Your task to perform on an android device: turn off location Image 0: 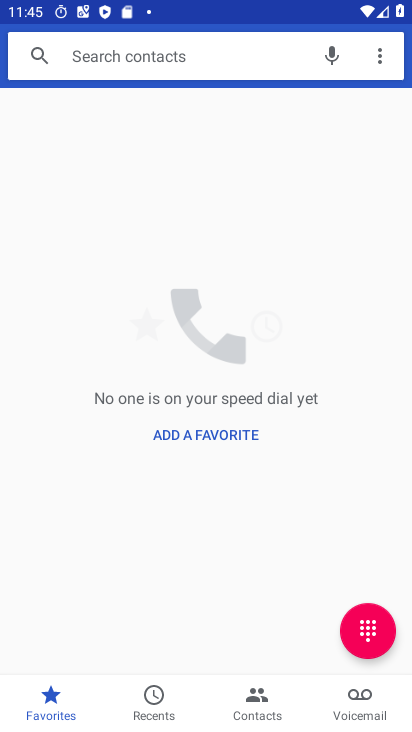
Step 0: press home button
Your task to perform on an android device: turn off location Image 1: 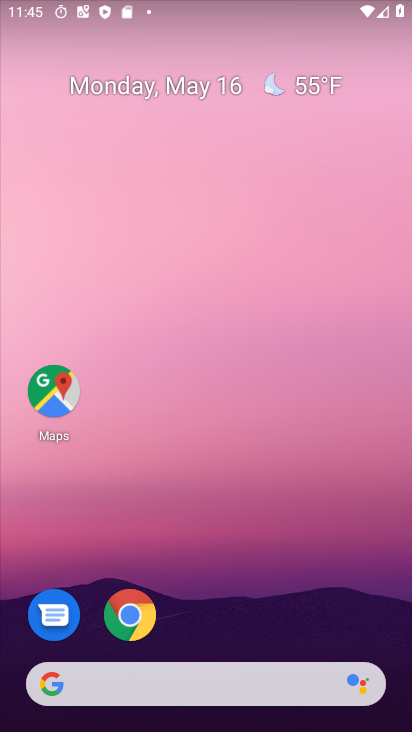
Step 1: drag from (222, 574) to (215, 131)
Your task to perform on an android device: turn off location Image 2: 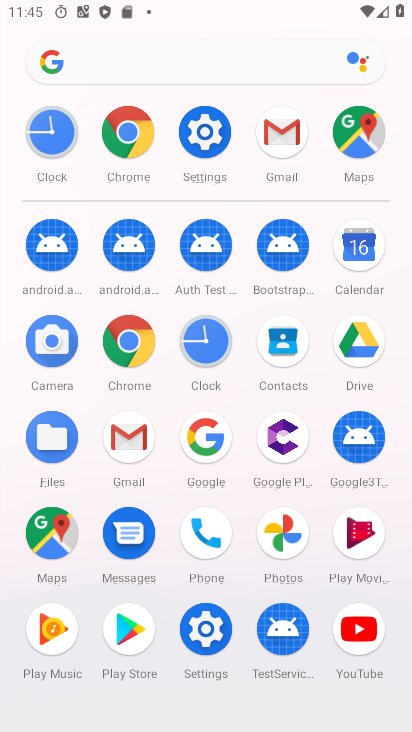
Step 2: click (202, 139)
Your task to perform on an android device: turn off location Image 3: 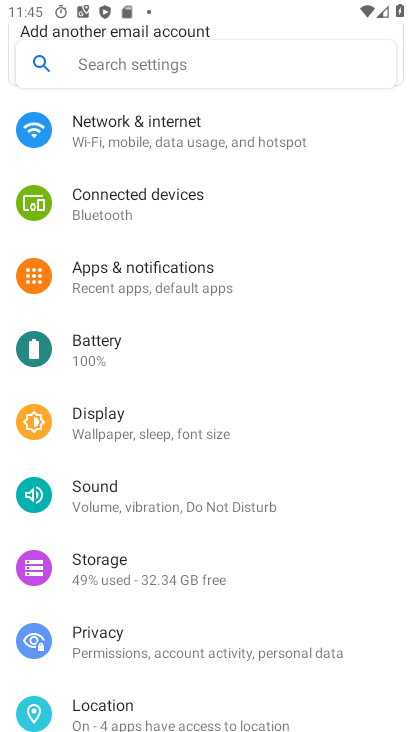
Step 3: click (117, 711)
Your task to perform on an android device: turn off location Image 4: 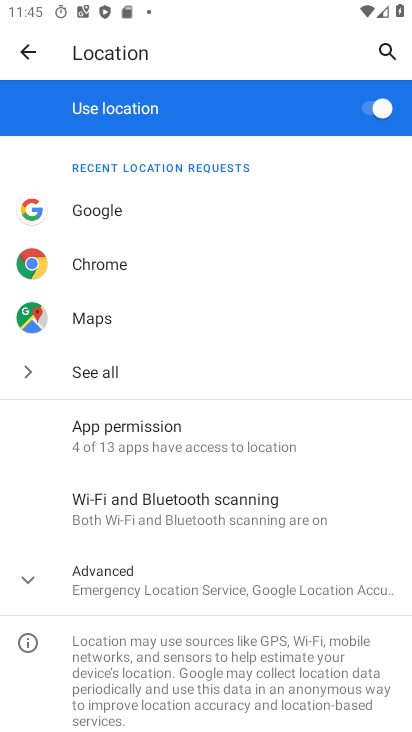
Step 4: click (383, 110)
Your task to perform on an android device: turn off location Image 5: 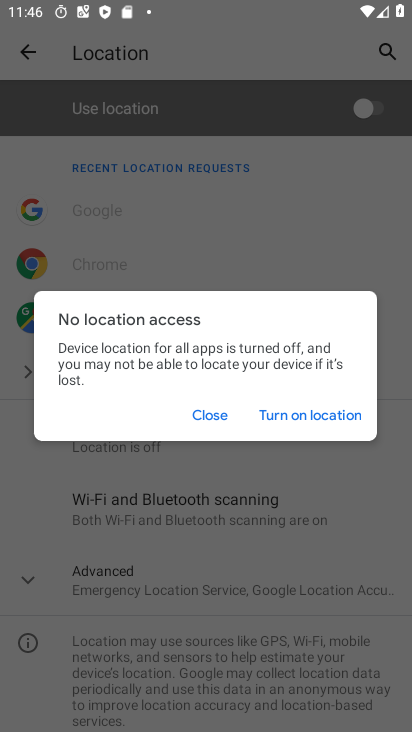
Step 5: click (213, 415)
Your task to perform on an android device: turn off location Image 6: 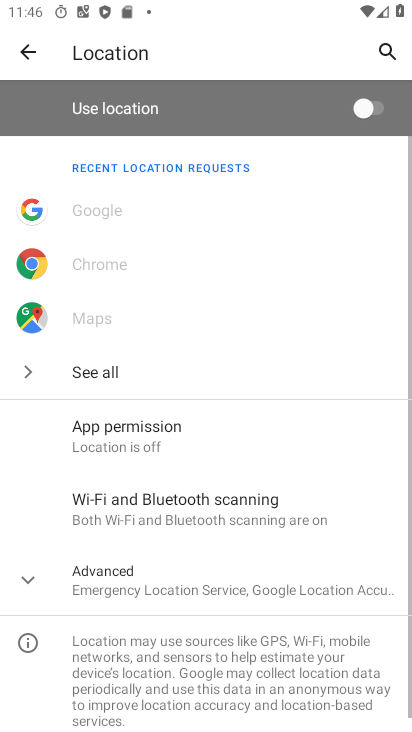
Step 6: task complete